Your task to perform on an android device: What's the weather like in Singapore? Image 0: 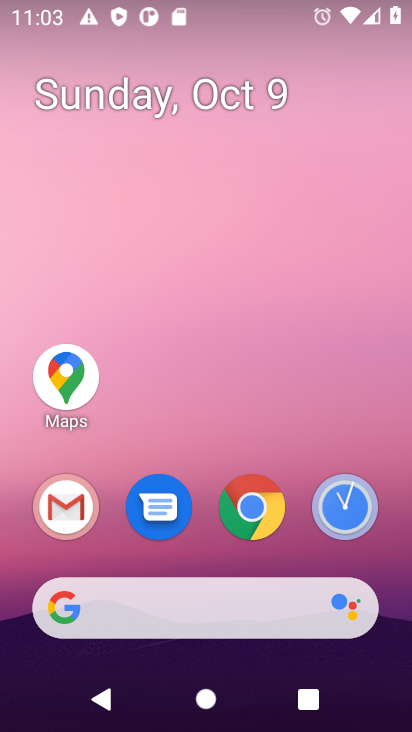
Step 0: press home button
Your task to perform on an android device: What's the weather like in Singapore? Image 1: 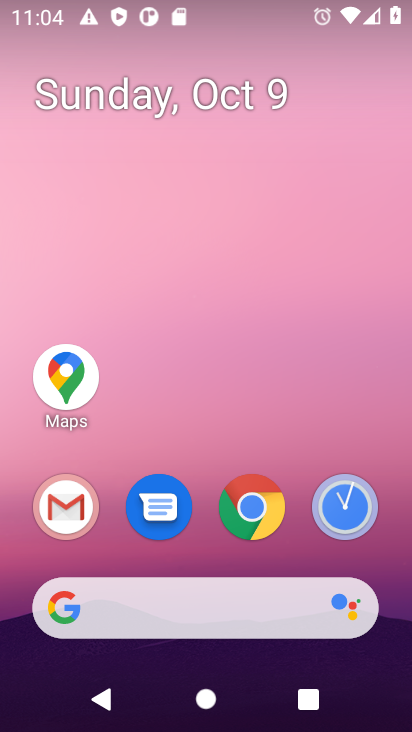
Step 1: click (260, 601)
Your task to perform on an android device: What's the weather like in Singapore? Image 2: 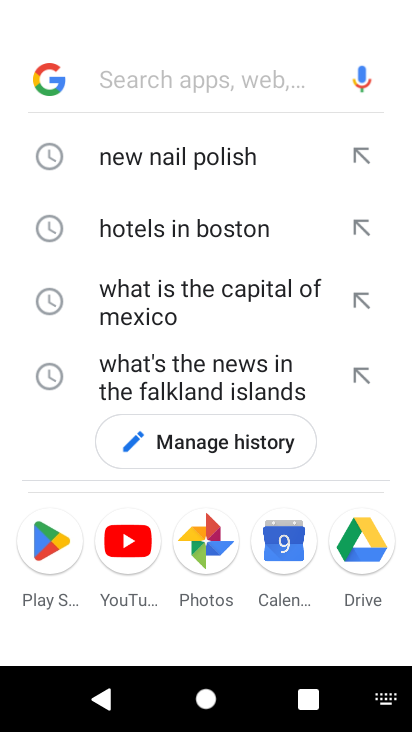
Step 2: type "What's the weather like in Singapore"
Your task to perform on an android device: What's the weather like in Singapore? Image 3: 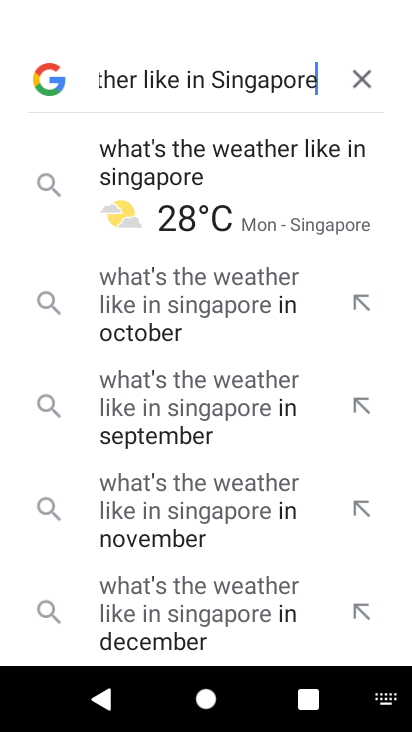
Step 3: press enter
Your task to perform on an android device: What's the weather like in Singapore? Image 4: 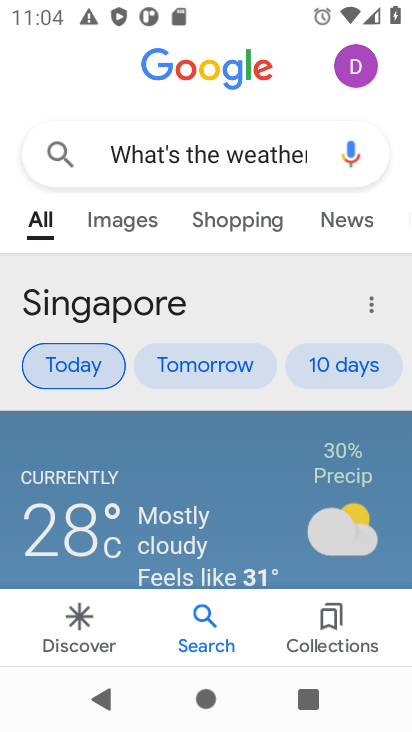
Step 4: task complete